Your task to perform on an android device: find which apps use the phone's location Image 0: 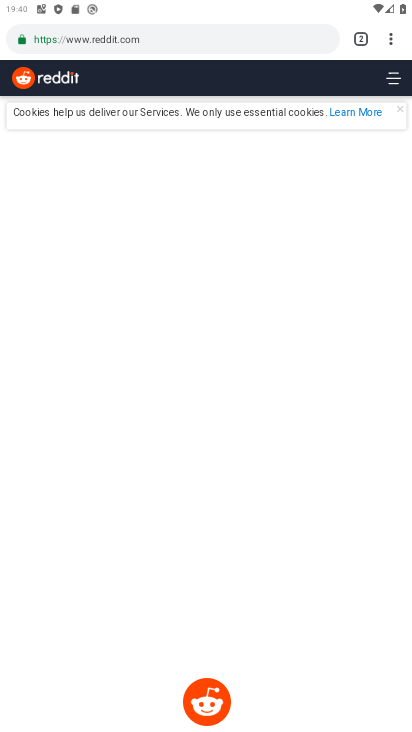
Step 0: press home button
Your task to perform on an android device: find which apps use the phone's location Image 1: 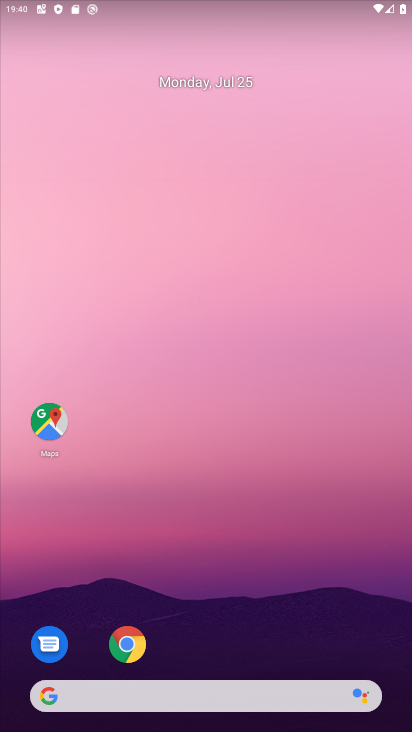
Step 1: drag from (219, 650) to (232, 59)
Your task to perform on an android device: find which apps use the phone's location Image 2: 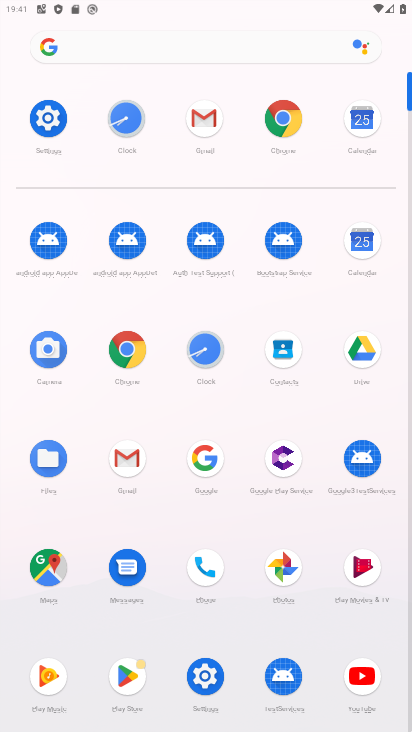
Step 2: click (47, 108)
Your task to perform on an android device: find which apps use the phone's location Image 3: 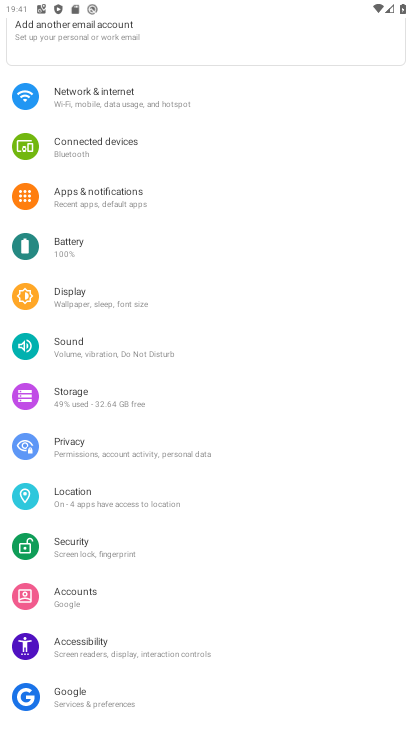
Step 3: click (111, 493)
Your task to perform on an android device: find which apps use the phone's location Image 4: 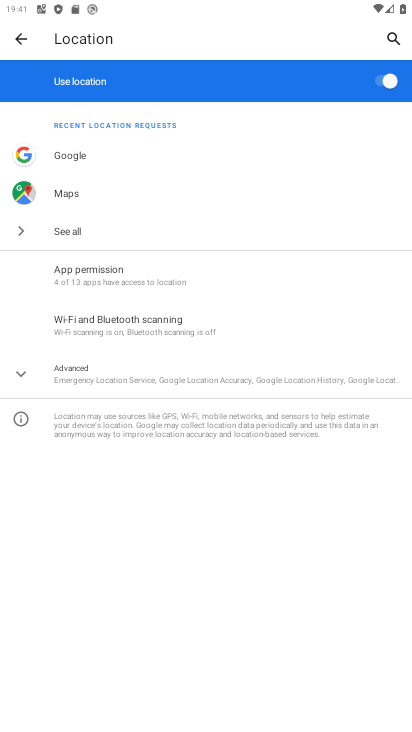
Step 4: click (78, 273)
Your task to perform on an android device: find which apps use the phone's location Image 5: 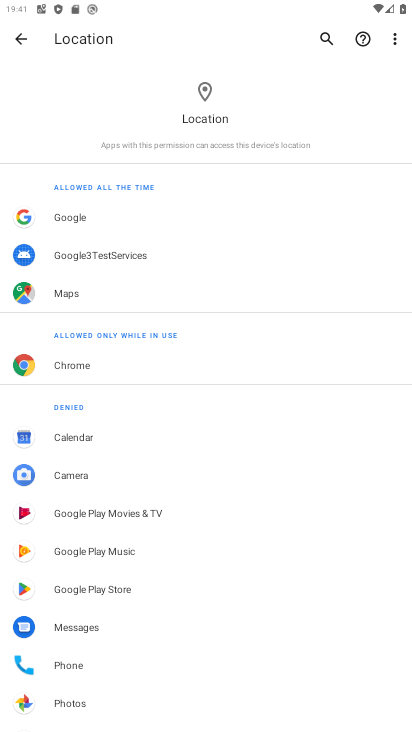
Step 5: task complete